Your task to perform on an android device: Open the stopwatch Image 0: 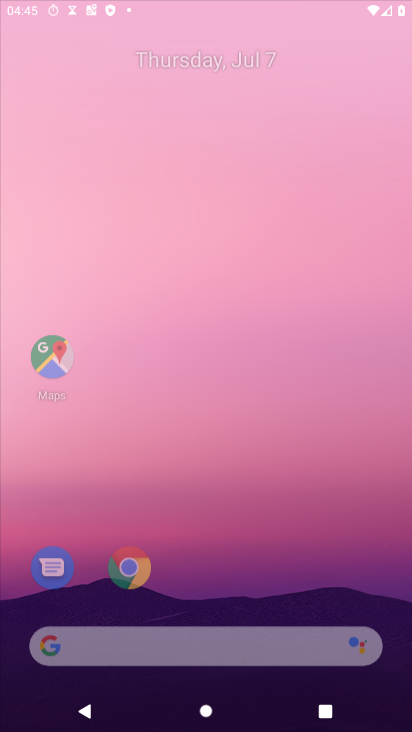
Step 0: press home button
Your task to perform on an android device: Open the stopwatch Image 1: 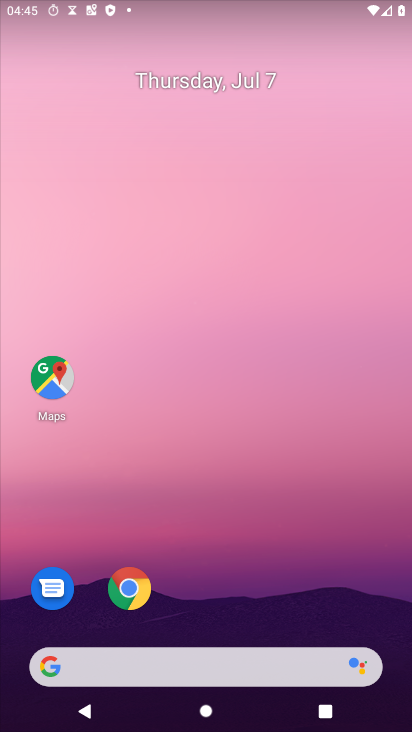
Step 1: drag from (279, 618) to (279, 197)
Your task to perform on an android device: Open the stopwatch Image 2: 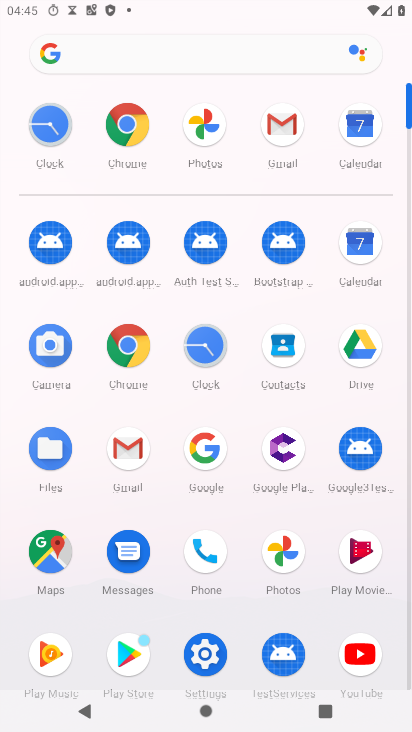
Step 2: click (202, 356)
Your task to perform on an android device: Open the stopwatch Image 3: 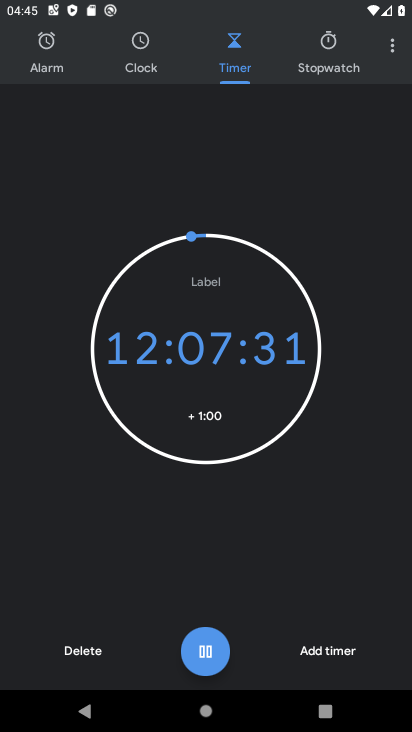
Step 3: click (325, 41)
Your task to perform on an android device: Open the stopwatch Image 4: 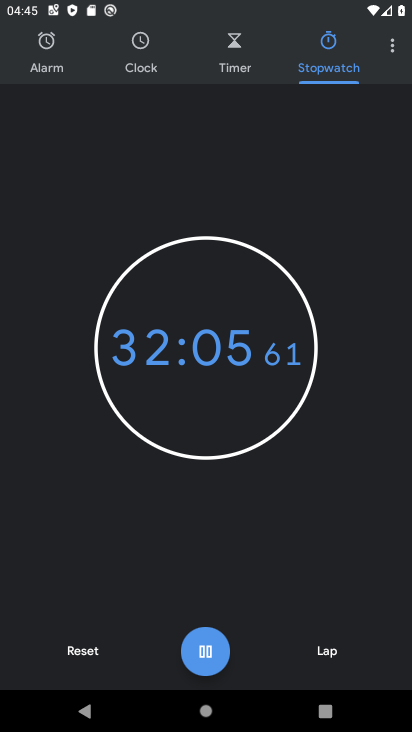
Step 4: task complete